Your task to perform on an android device: move a message to another label in the gmail app Image 0: 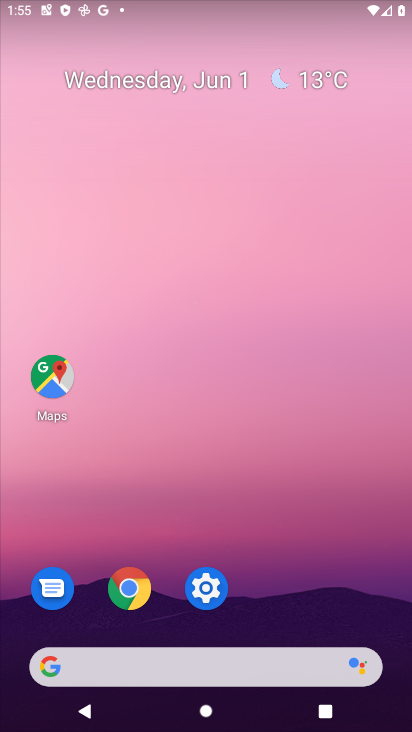
Step 0: drag from (286, 695) to (256, 275)
Your task to perform on an android device: move a message to another label in the gmail app Image 1: 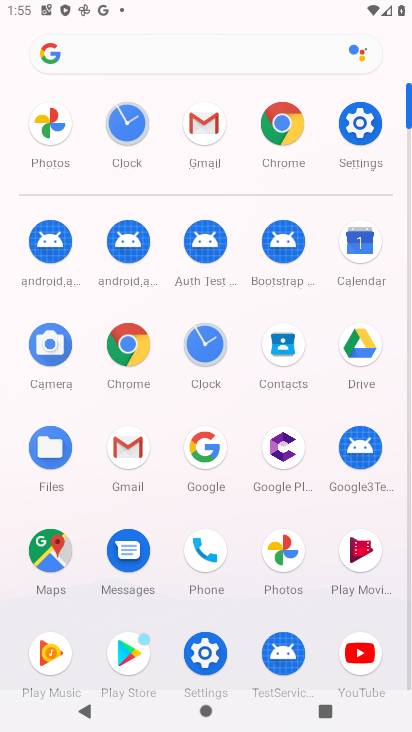
Step 1: click (203, 148)
Your task to perform on an android device: move a message to another label in the gmail app Image 2: 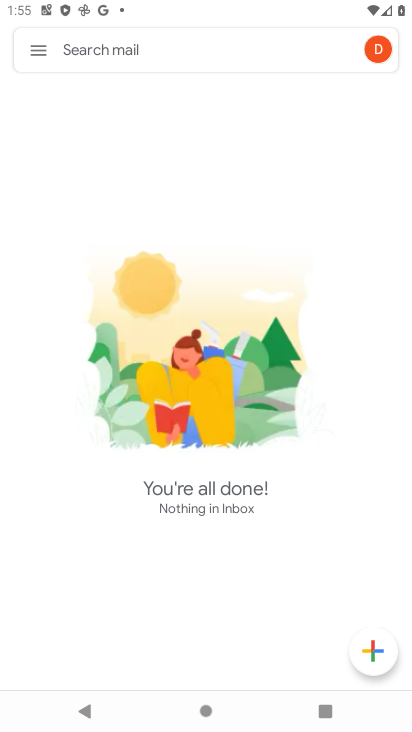
Step 2: click (42, 59)
Your task to perform on an android device: move a message to another label in the gmail app Image 3: 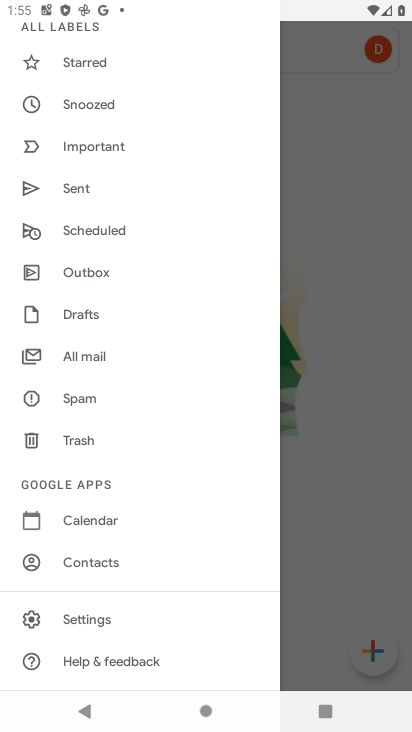
Step 3: click (89, 616)
Your task to perform on an android device: move a message to another label in the gmail app Image 4: 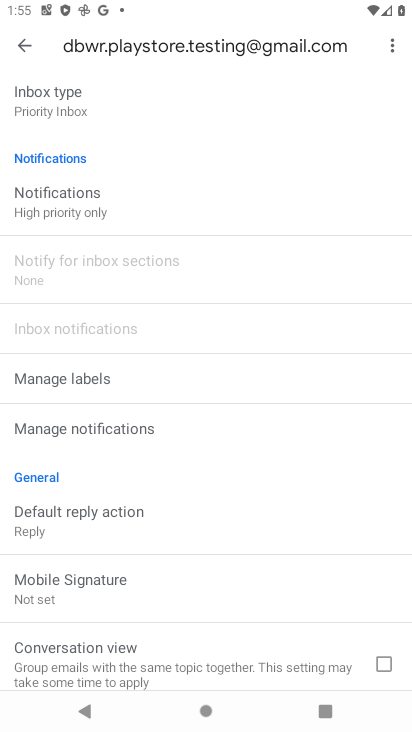
Step 4: click (97, 369)
Your task to perform on an android device: move a message to another label in the gmail app Image 5: 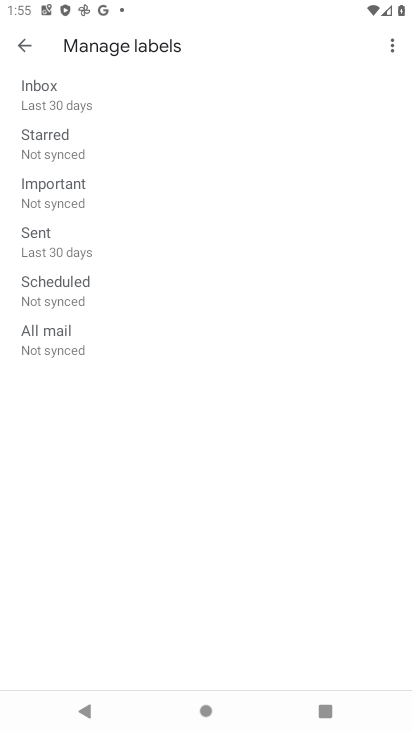
Step 5: click (83, 192)
Your task to perform on an android device: move a message to another label in the gmail app Image 6: 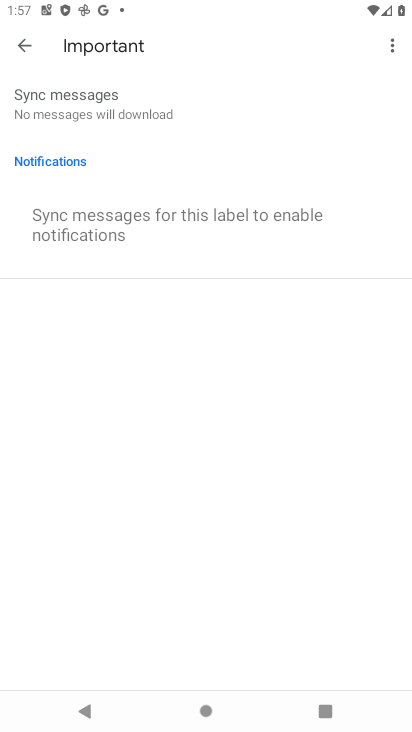
Step 6: task complete